Your task to perform on an android device: all mails in gmail Image 0: 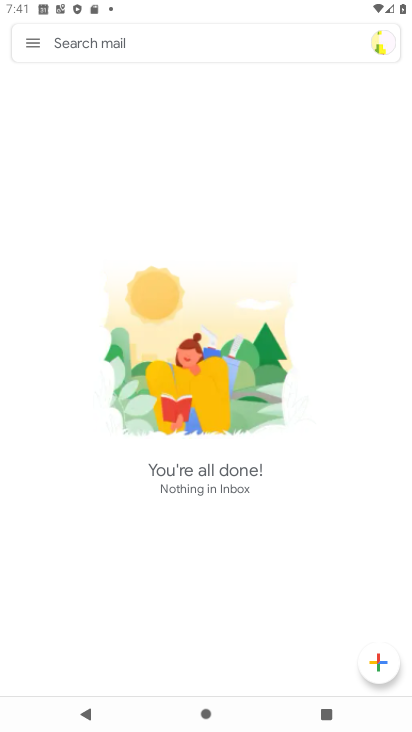
Step 0: click (35, 40)
Your task to perform on an android device: all mails in gmail Image 1: 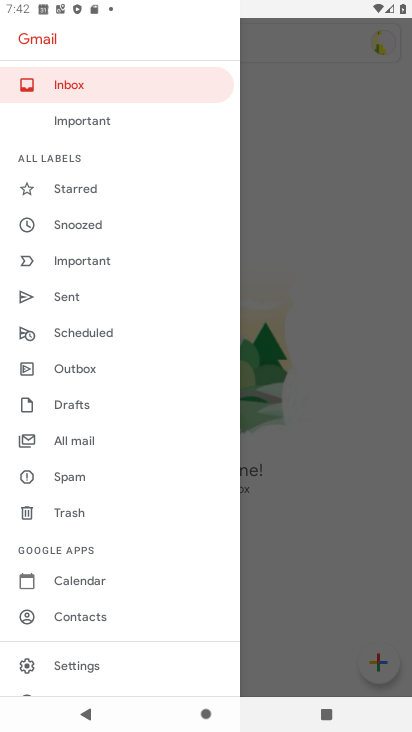
Step 1: click (75, 431)
Your task to perform on an android device: all mails in gmail Image 2: 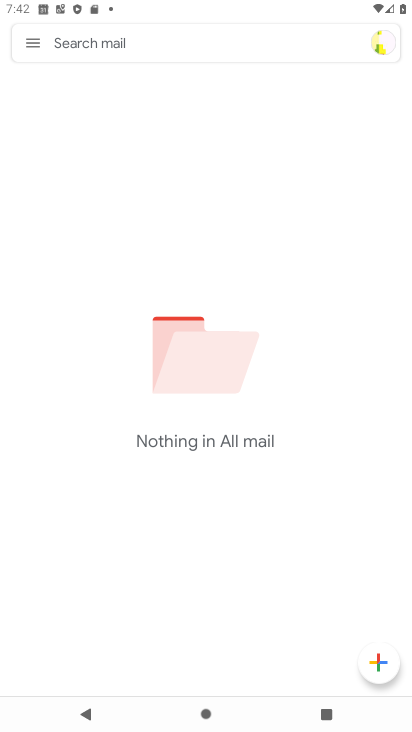
Step 2: task complete